Your task to perform on an android device: Show me popular videos on Youtube Image 0: 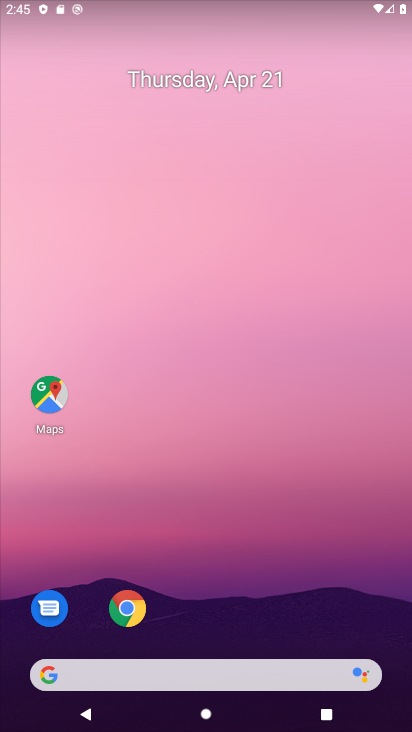
Step 0: drag from (255, 594) to (253, 53)
Your task to perform on an android device: Show me popular videos on Youtube Image 1: 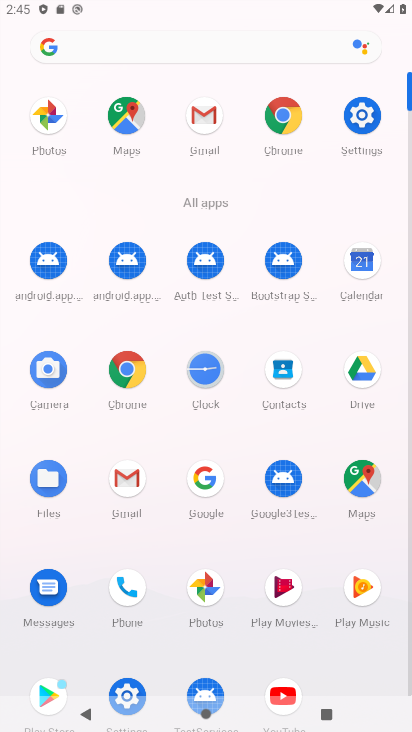
Step 1: drag from (241, 673) to (252, 528)
Your task to perform on an android device: Show me popular videos on Youtube Image 2: 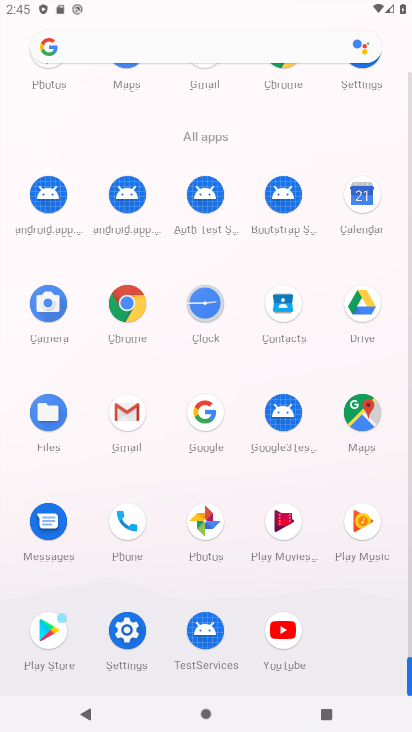
Step 2: click (282, 621)
Your task to perform on an android device: Show me popular videos on Youtube Image 3: 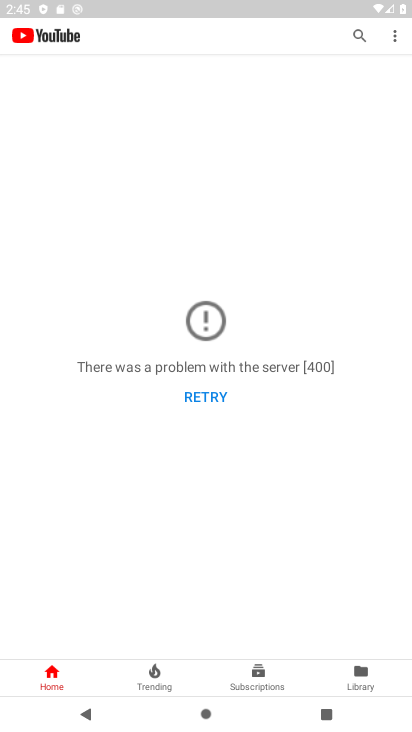
Step 3: click (154, 674)
Your task to perform on an android device: Show me popular videos on Youtube Image 4: 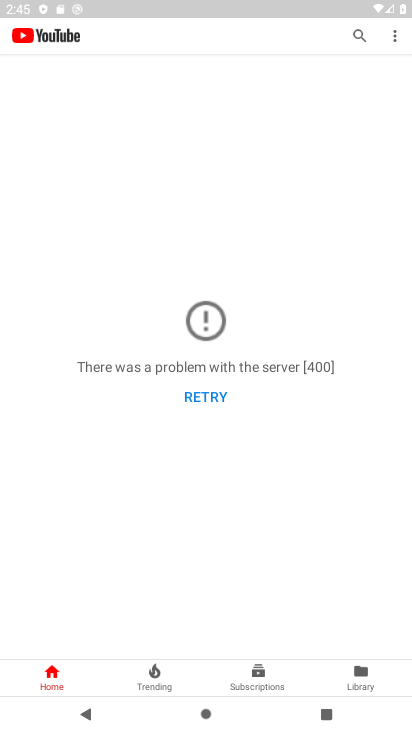
Step 4: click (140, 683)
Your task to perform on an android device: Show me popular videos on Youtube Image 5: 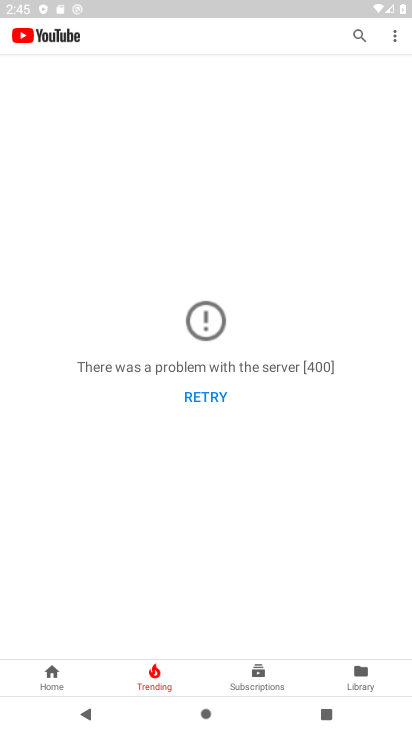
Step 5: click (197, 394)
Your task to perform on an android device: Show me popular videos on Youtube Image 6: 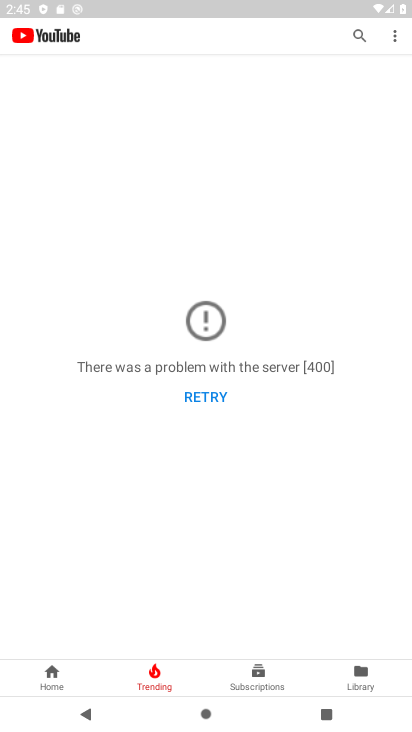
Step 6: click (197, 394)
Your task to perform on an android device: Show me popular videos on Youtube Image 7: 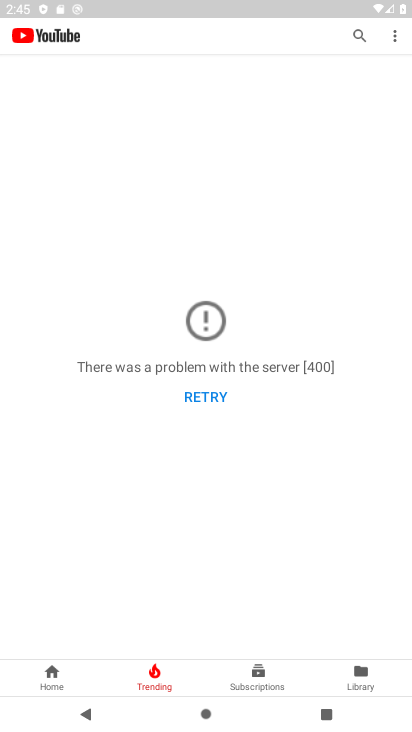
Step 7: click (197, 394)
Your task to perform on an android device: Show me popular videos on Youtube Image 8: 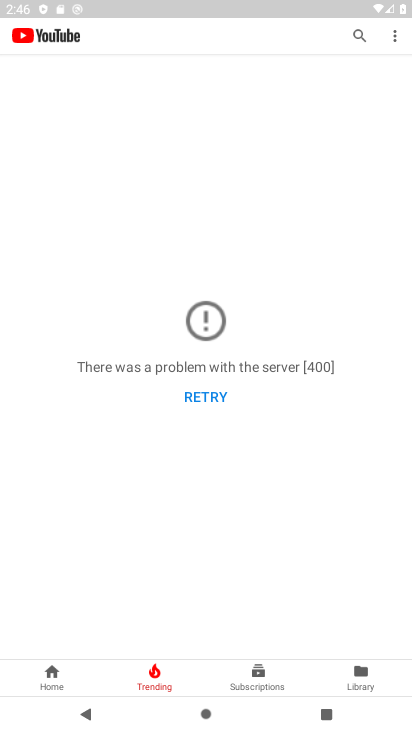
Step 8: click (197, 394)
Your task to perform on an android device: Show me popular videos on Youtube Image 9: 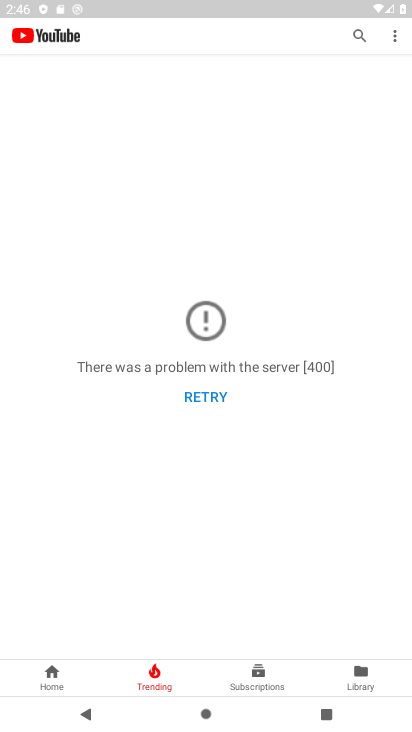
Step 9: click (194, 390)
Your task to perform on an android device: Show me popular videos on Youtube Image 10: 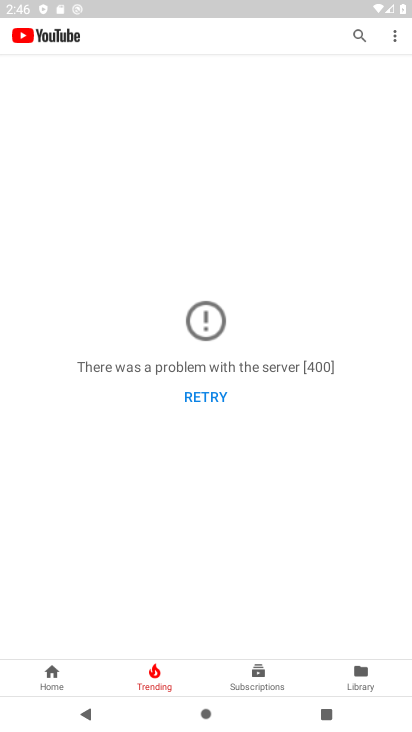
Step 10: click (194, 390)
Your task to perform on an android device: Show me popular videos on Youtube Image 11: 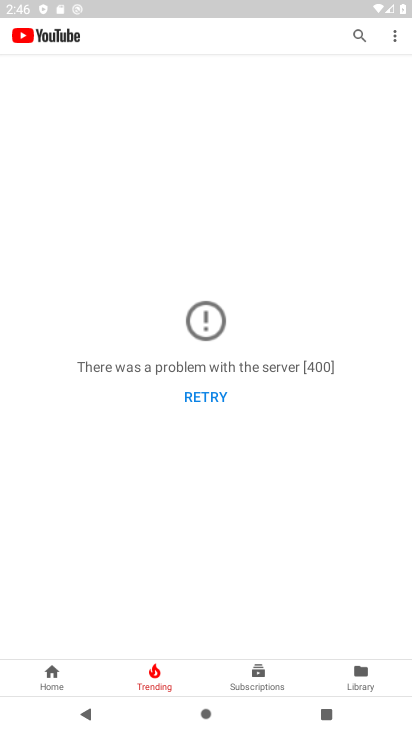
Step 11: task complete